Your task to perform on an android device: clear history in the chrome app Image 0: 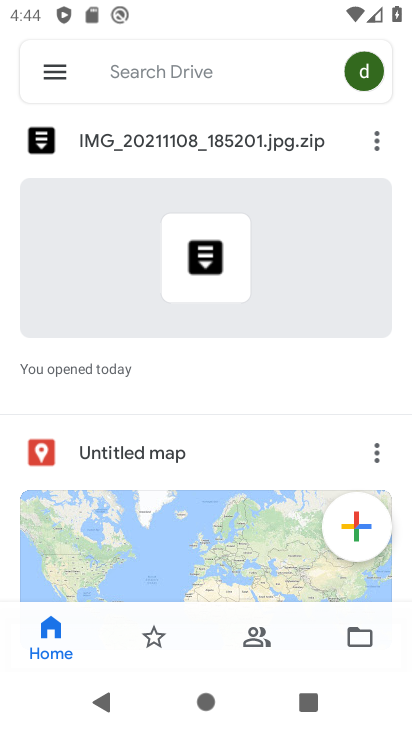
Step 0: press home button
Your task to perform on an android device: clear history in the chrome app Image 1: 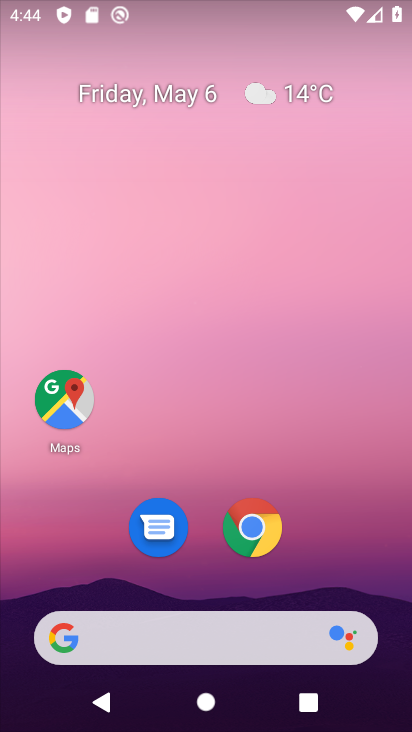
Step 1: click (274, 515)
Your task to perform on an android device: clear history in the chrome app Image 2: 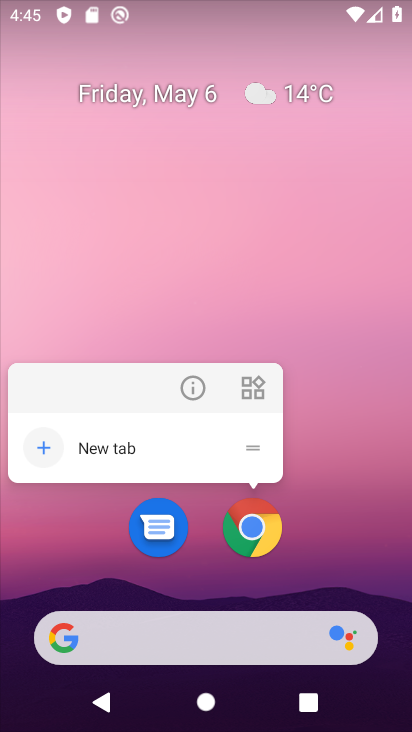
Step 2: click (250, 529)
Your task to perform on an android device: clear history in the chrome app Image 3: 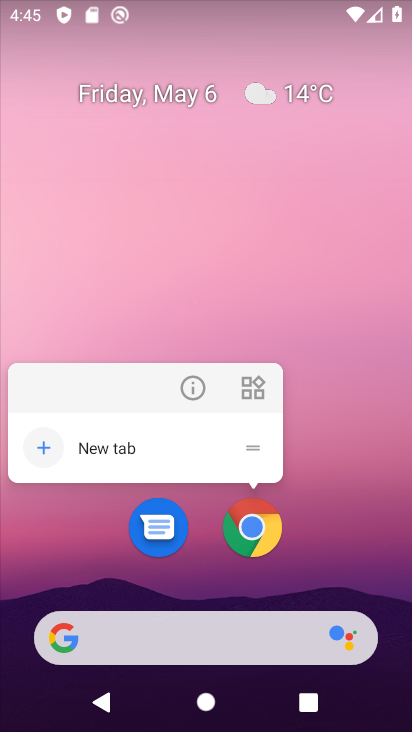
Step 3: click (251, 516)
Your task to perform on an android device: clear history in the chrome app Image 4: 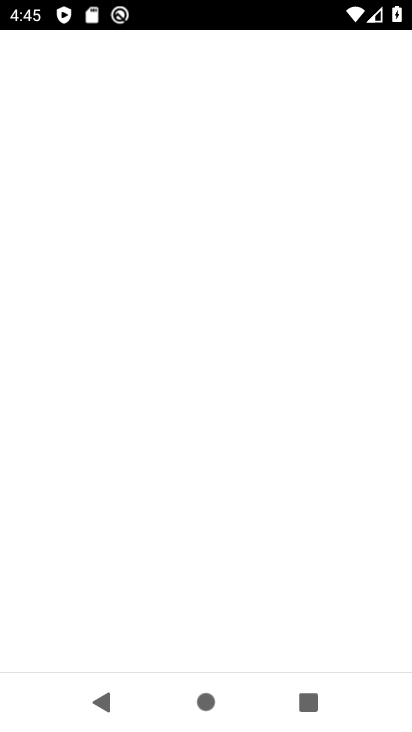
Step 4: click (251, 518)
Your task to perform on an android device: clear history in the chrome app Image 5: 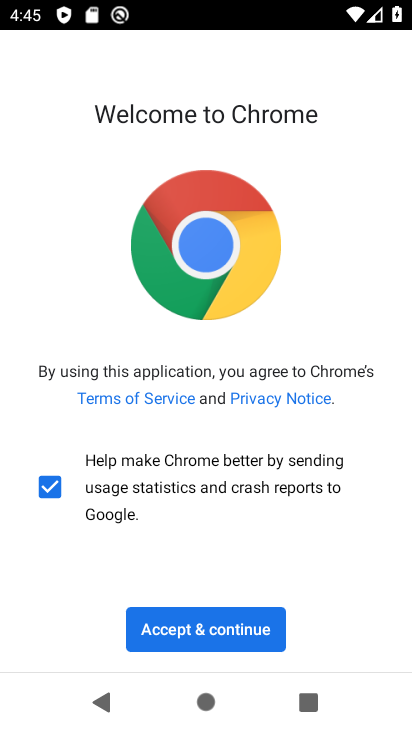
Step 5: click (221, 630)
Your task to perform on an android device: clear history in the chrome app Image 6: 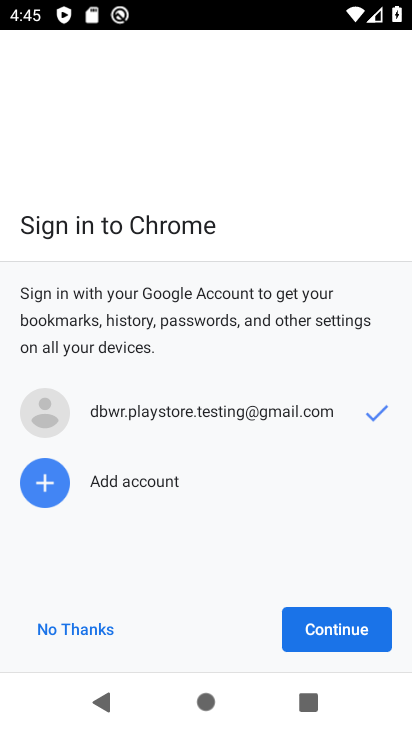
Step 6: click (318, 632)
Your task to perform on an android device: clear history in the chrome app Image 7: 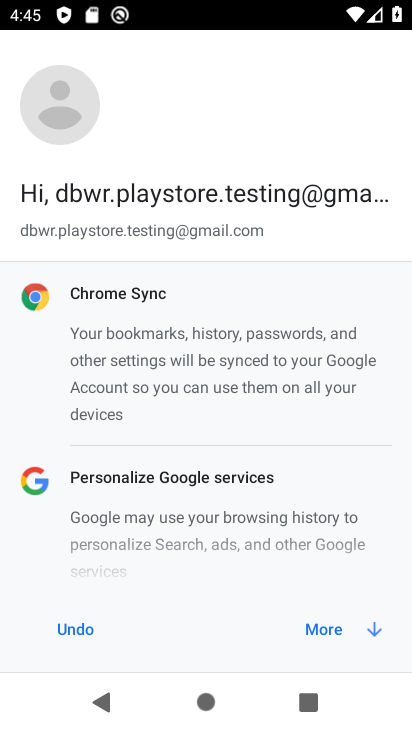
Step 7: click (309, 632)
Your task to perform on an android device: clear history in the chrome app Image 8: 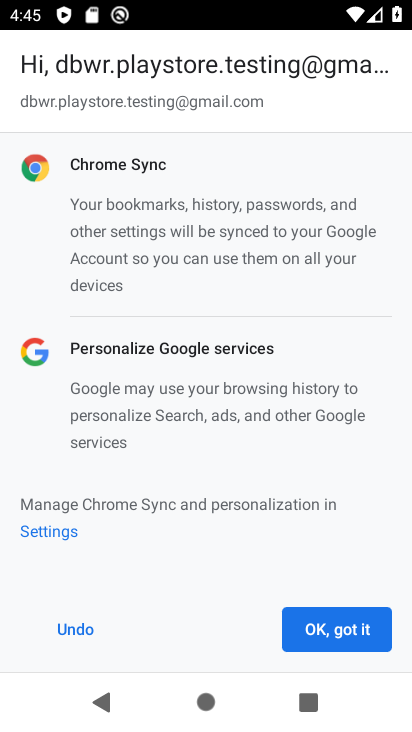
Step 8: click (323, 626)
Your task to perform on an android device: clear history in the chrome app Image 9: 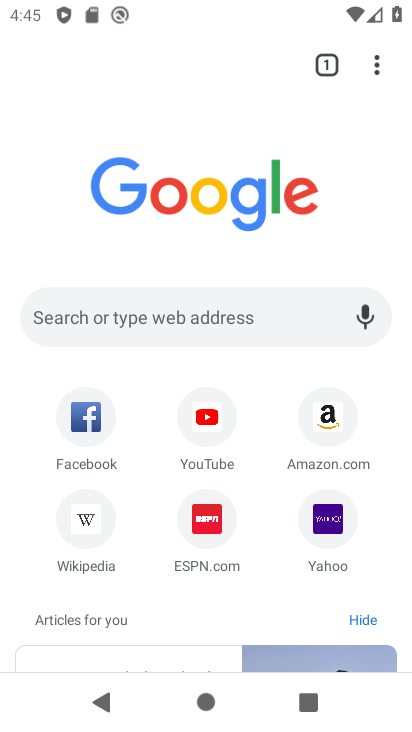
Step 9: click (370, 66)
Your task to perform on an android device: clear history in the chrome app Image 10: 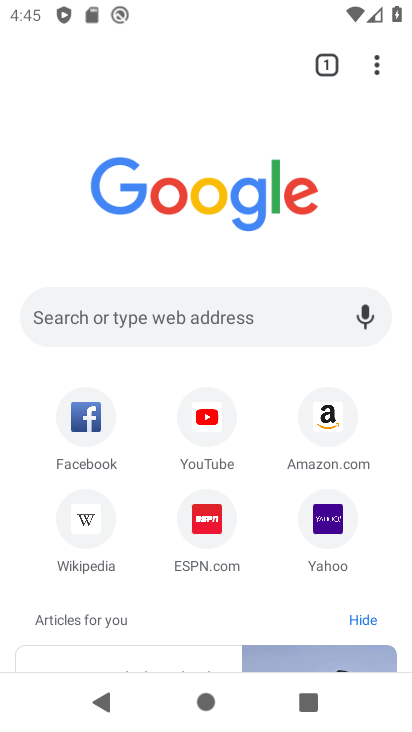
Step 10: click (370, 73)
Your task to perform on an android device: clear history in the chrome app Image 11: 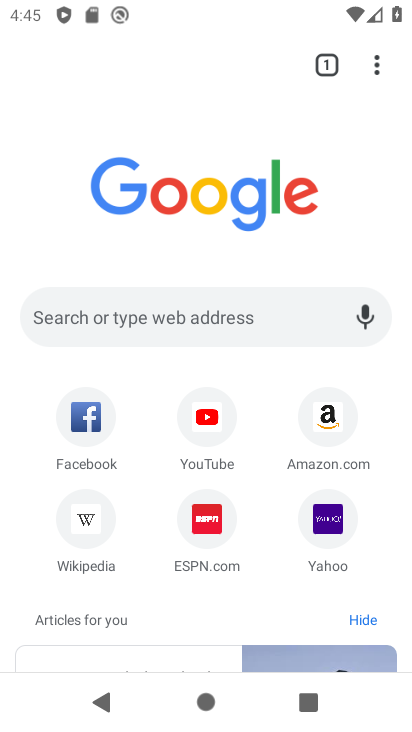
Step 11: click (370, 73)
Your task to perform on an android device: clear history in the chrome app Image 12: 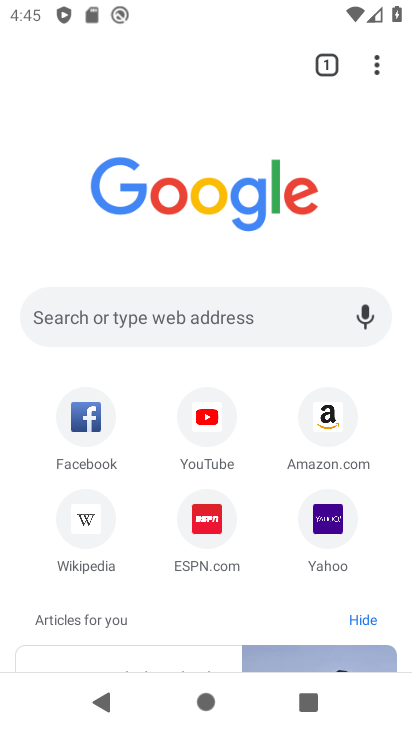
Step 12: task complete